Your task to perform on an android device: open chrome privacy settings Image 0: 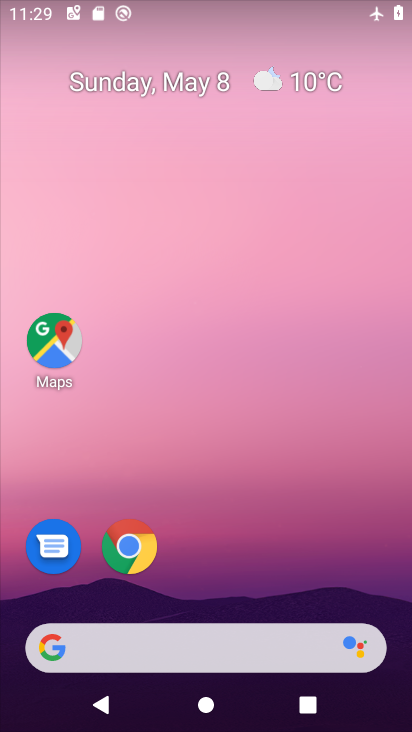
Step 0: click (127, 544)
Your task to perform on an android device: open chrome privacy settings Image 1: 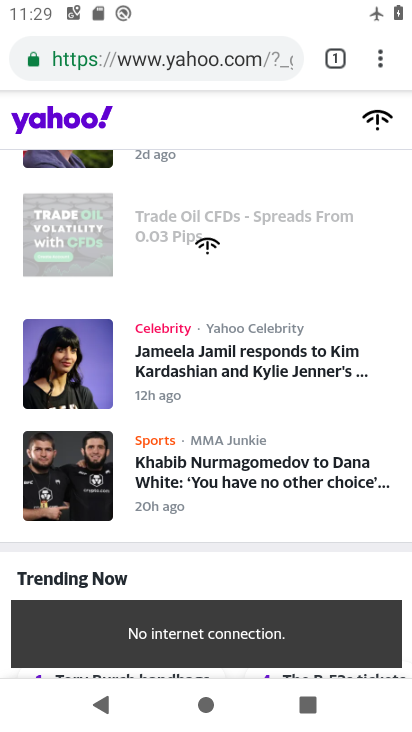
Step 1: click (378, 63)
Your task to perform on an android device: open chrome privacy settings Image 2: 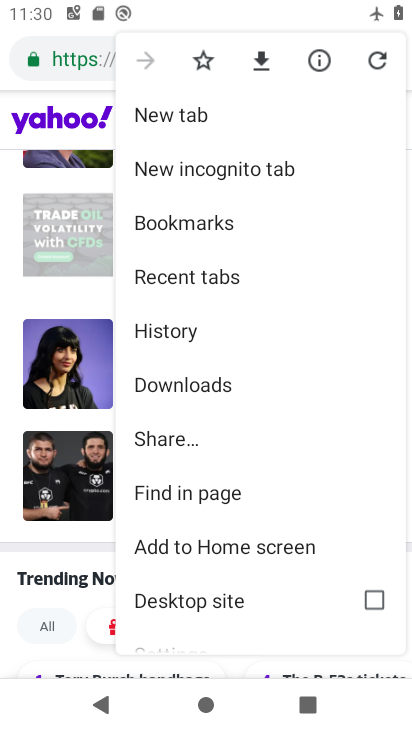
Step 2: drag from (255, 571) to (254, 255)
Your task to perform on an android device: open chrome privacy settings Image 3: 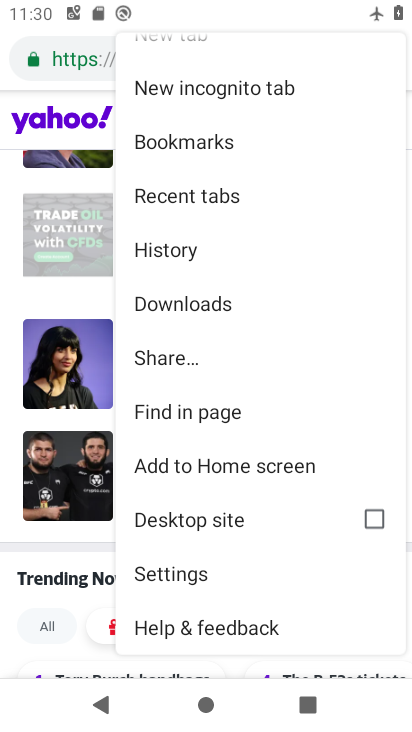
Step 3: click (167, 572)
Your task to perform on an android device: open chrome privacy settings Image 4: 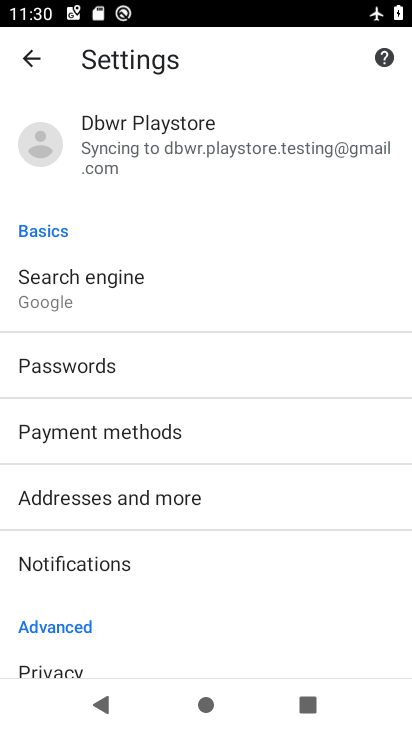
Step 4: drag from (167, 572) to (129, 191)
Your task to perform on an android device: open chrome privacy settings Image 5: 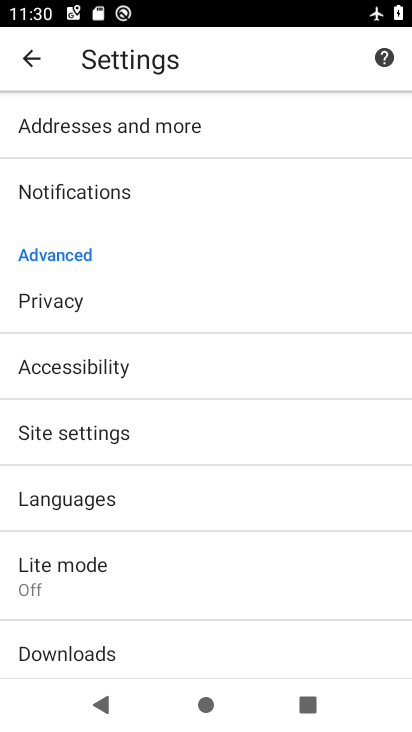
Step 5: click (53, 312)
Your task to perform on an android device: open chrome privacy settings Image 6: 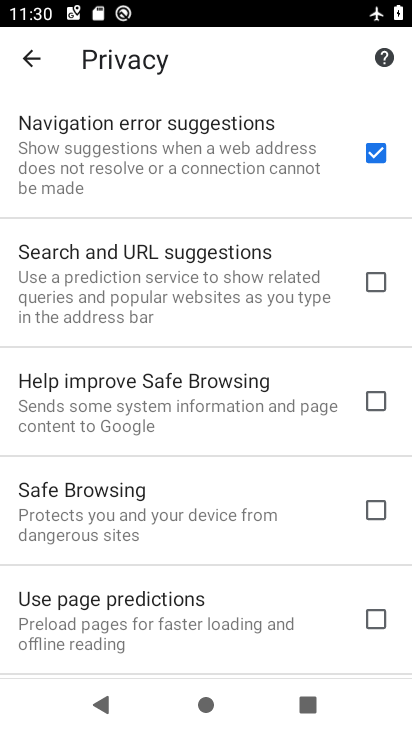
Step 6: task complete